Your task to perform on an android device: stop showing notifications on the lock screen Image 0: 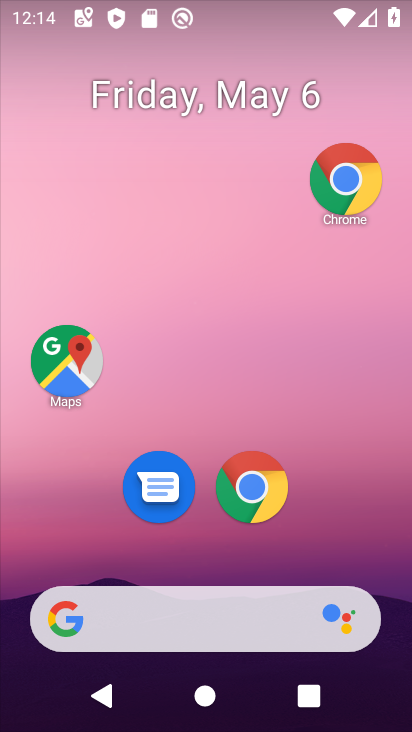
Step 0: drag from (331, 543) to (293, 248)
Your task to perform on an android device: stop showing notifications on the lock screen Image 1: 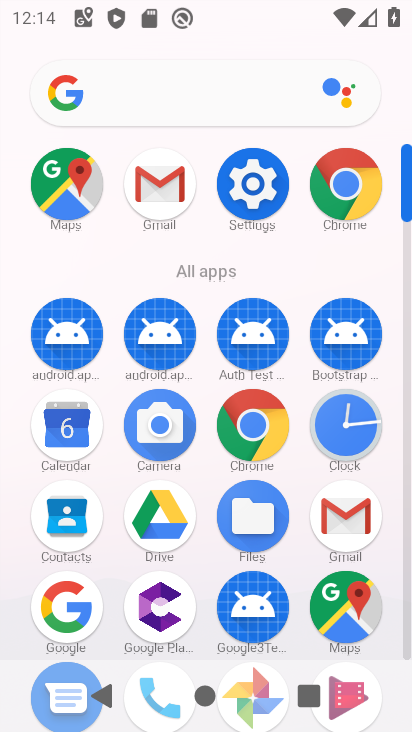
Step 1: click (259, 179)
Your task to perform on an android device: stop showing notifications on the lock screen Image 2: 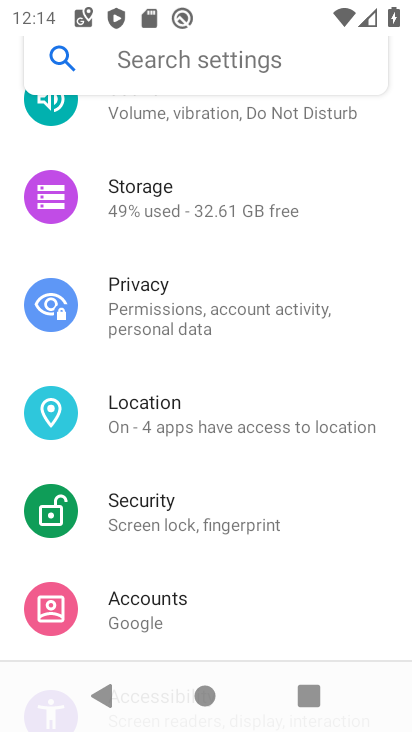
Step 2: drag from (214, 426) to (213, 581)
Your task to perform on an android device: stop showing notifications on the lock screen Image 3: 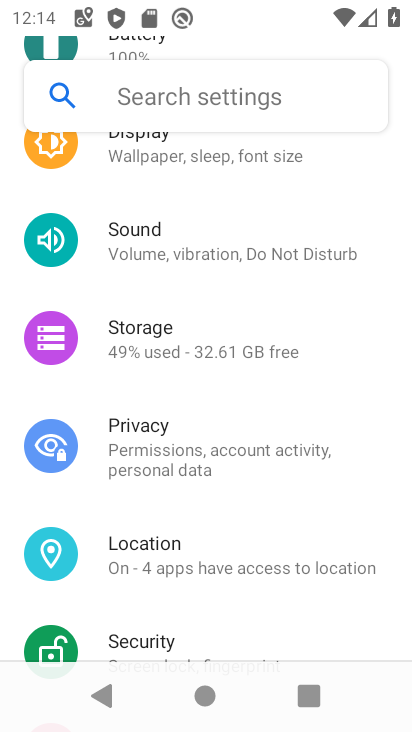
Step 3: drag from (199, 279) to (203, 443)
Your task to perform on an android device: stop showing notifications on the lock screen Image 4: 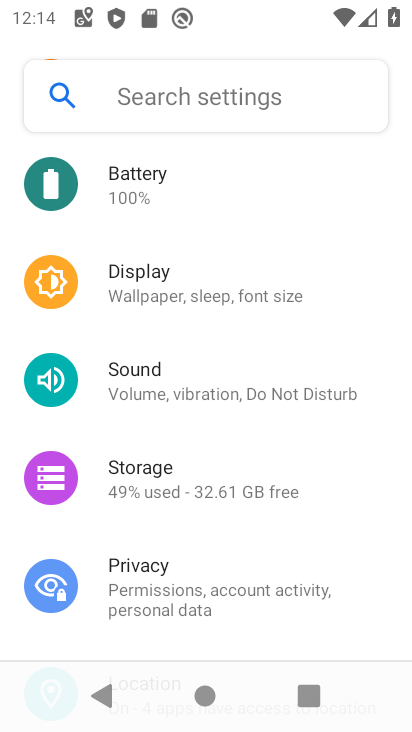
Step 4: drag from (212, 249) to (233, 434)
Your task to perform on an android device: stop showing notifications on the lock screen Image 5: 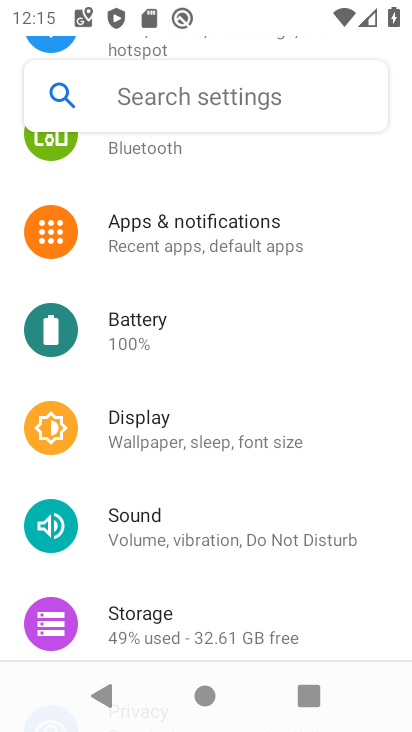
Step 5: click (251, 247)
Your task to perform on an android device: stop showing notifications on the lock screen Image 6: 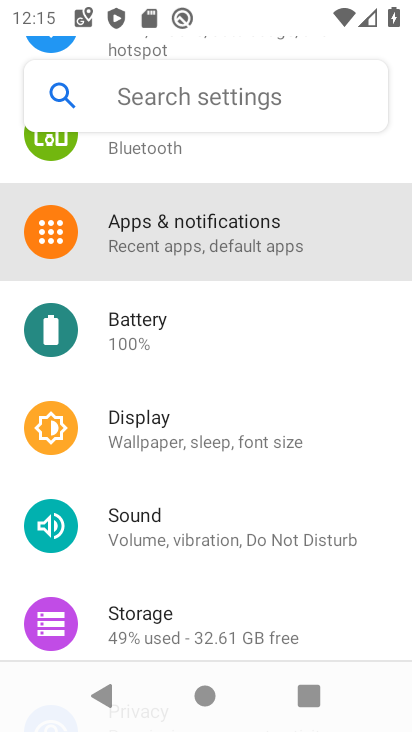
Step 6: click (251, 247)
Your task to perform on an android device: stop showing notifications on the lock screen Image 7: 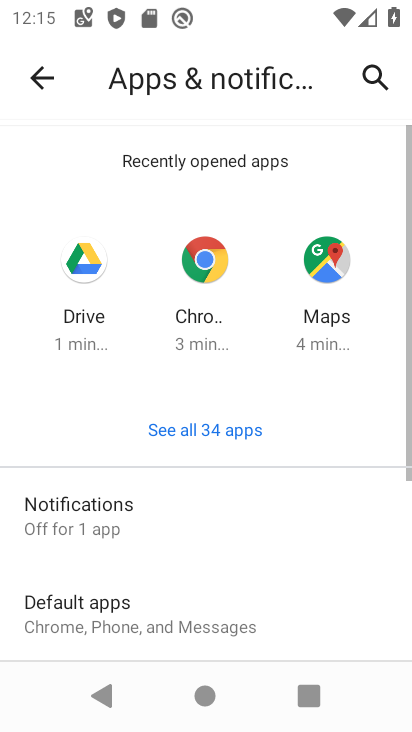
Step 7: drag from (269, 463) to (332, 281)
Your task to perform on an android device: stop showing notifications on the lock screen Image 8: 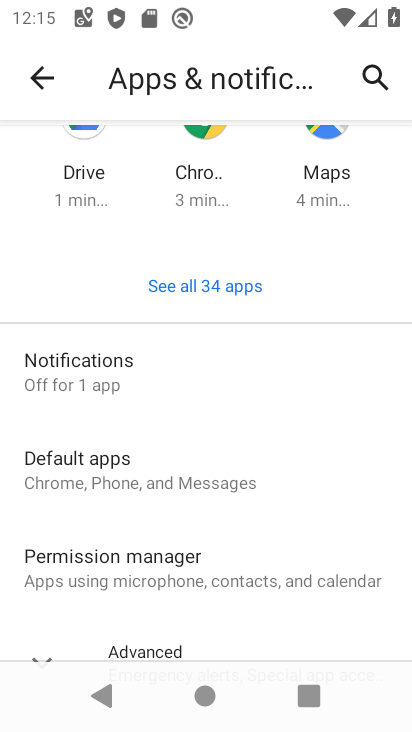
Step 8: drag from (207, 588) to (209, 227)
Your task to perform on an android device: stop showing notifications on the lock screen Image 9: 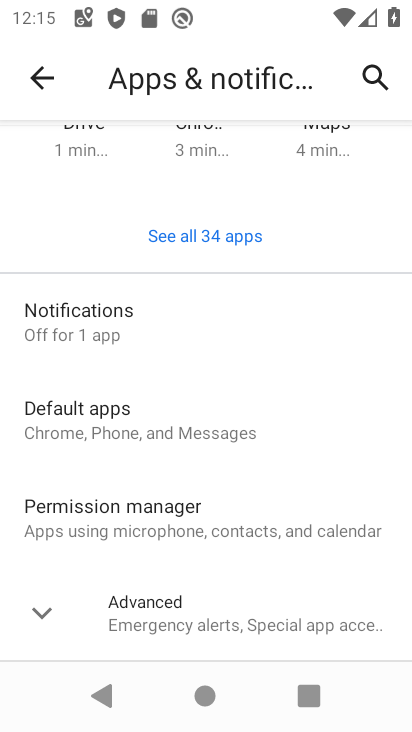
Step 9: click (154, 313)
Your task to perform on an android device: stop showing notifications on the lock screen Image 10: 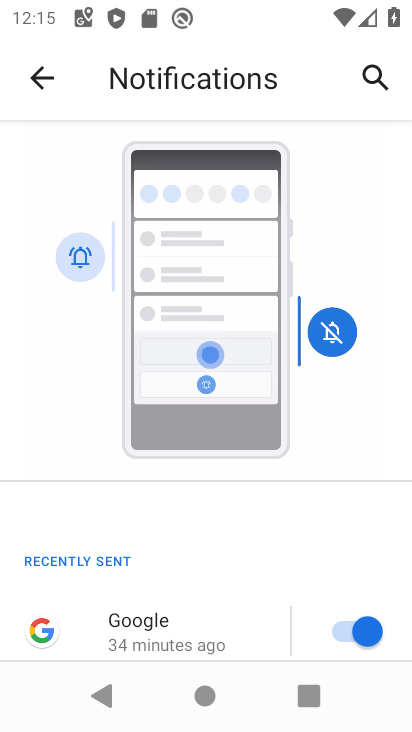
Step 10: drag from (272, 608) to (209, 265)
Your task to perform on an android device: stop showing notifications on the lock screen Image 11: 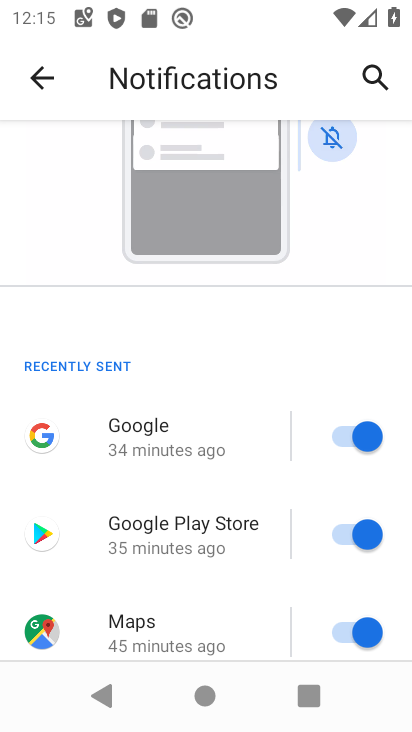
Step 11: drag from (154, 575) to (161, 258)
Your task to perform on an android device: stop showing notifications on the lock screen Image 12: 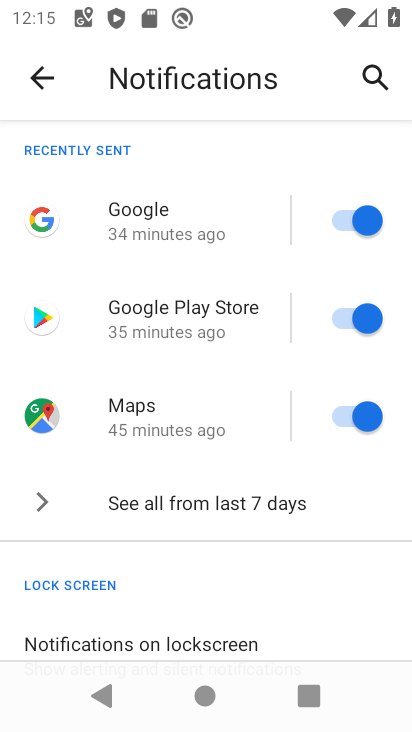
Step 12: drag from (164, 536) to (173, 237)
Your task to perform on an android device: stop showing notifications on the lock screen Image 13: 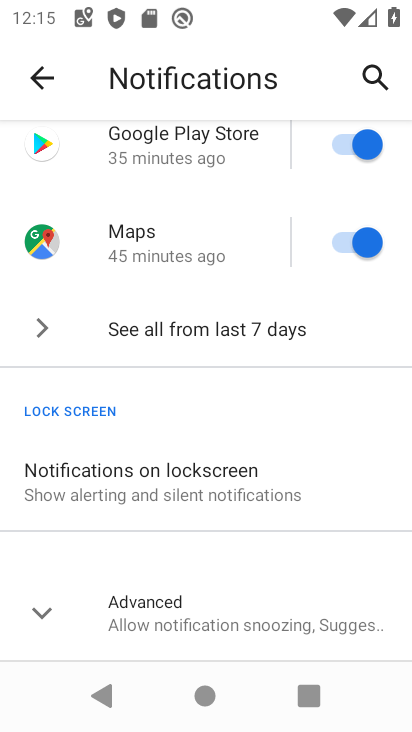
Step 13: click (122, 614)
Your task to perform on an android device: stop showing notifications on the lock screen Image 14: 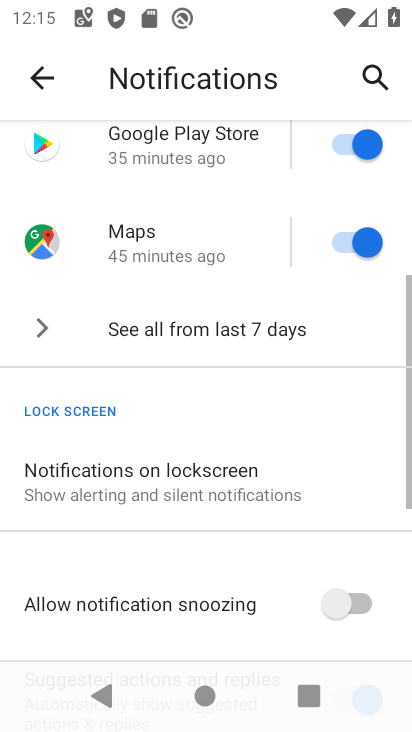
Step 14: drag from (188, 548) to (230, 200)
Your task to perform on an android device: stop showing notifications on the lock screen Image 15: 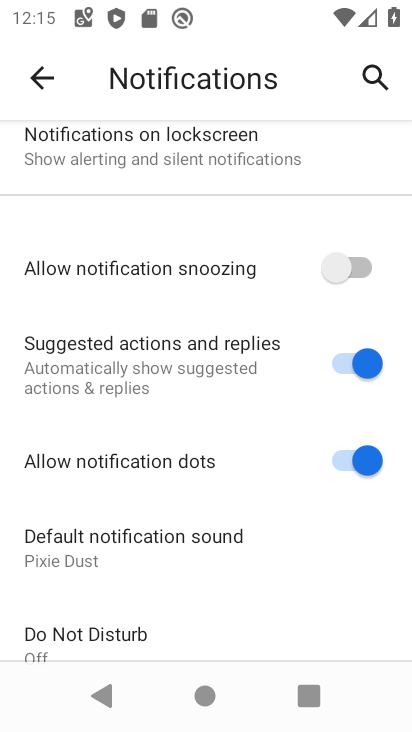
Step 15: click (167, 171)
Your task to perform on an android device: stop showing notifications on the lock screen Image 16: 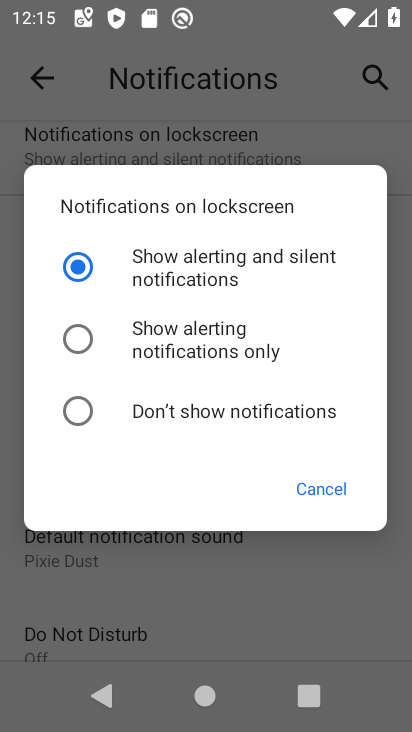
Step 16: click (200, 403)
Your task to perform on an android device: stop showing notifications on the lock screen Image 17: 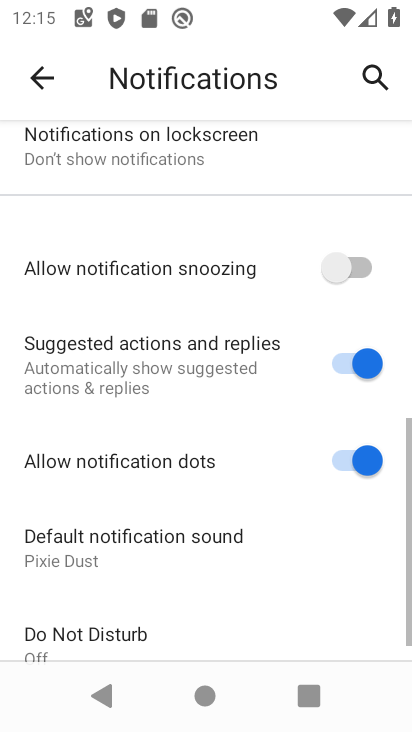
Step 17: task complete